Your task to perform on an android device: View the shopping cart on bestbuy.com. Image 0: 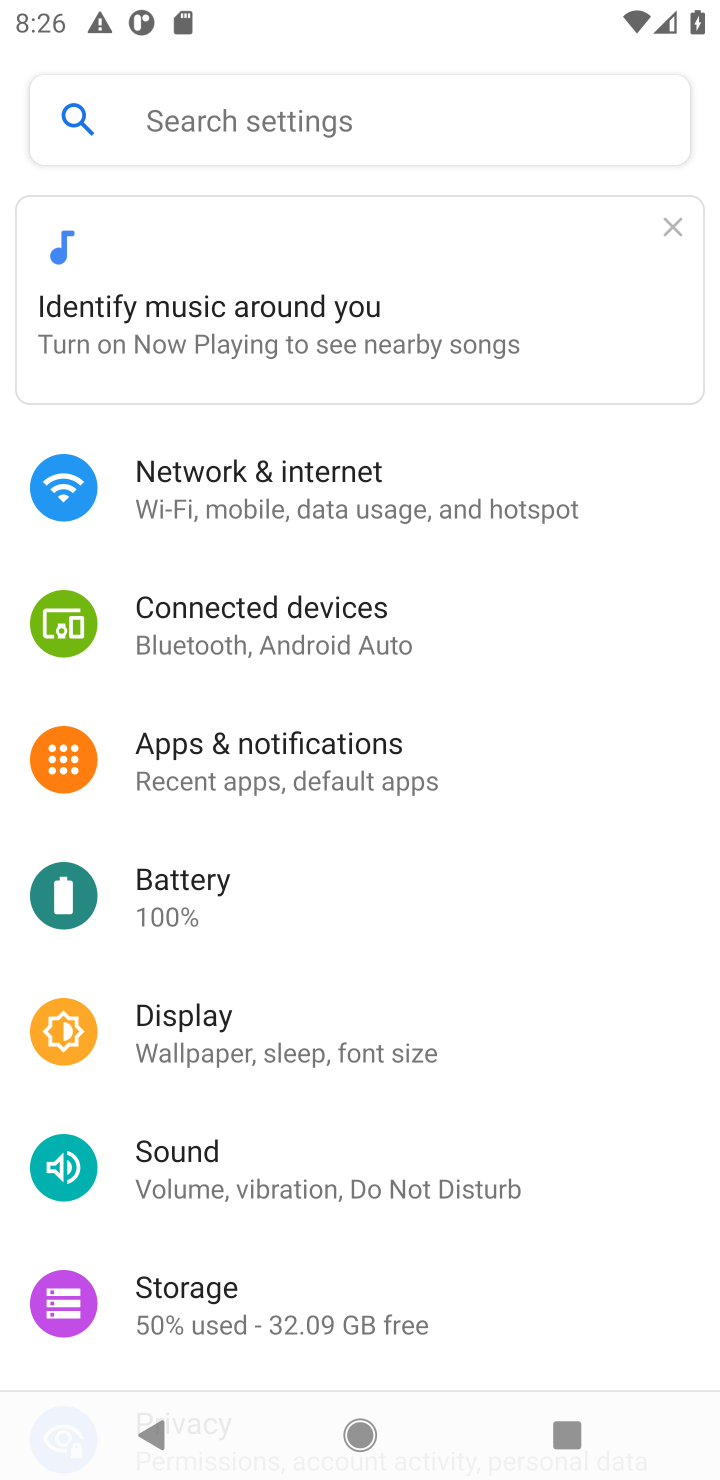
Step 0: press home button
Your task to perform on an android device: View the shopping cart on bestbuy.com. Image 1: 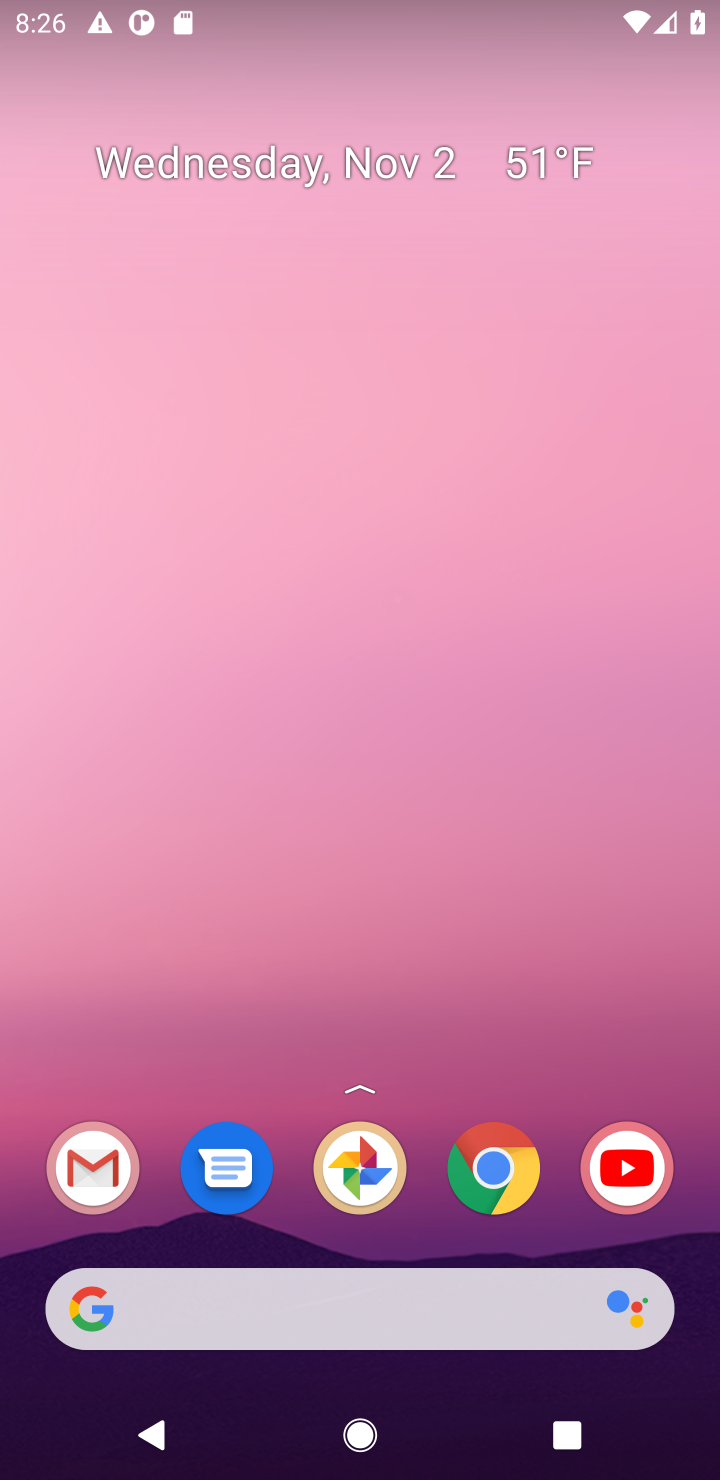
Step 1: click (706, 339)
Your task to perform on an android device: View the shopping cart on bestbuy.com. Image 2: 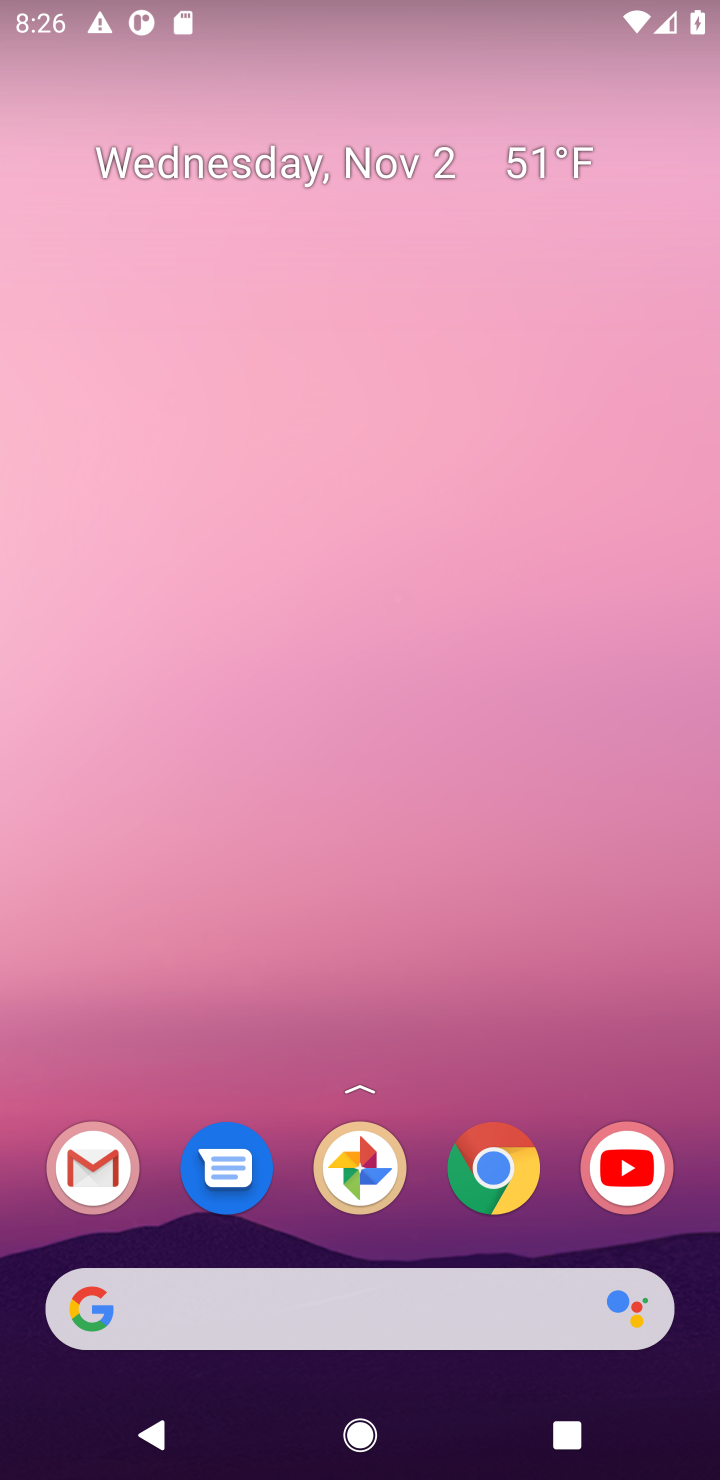
Step 2: click (517, 1158)
Your task to perform on an android device: View the shopping cart on bestbuy.com. Image 3: 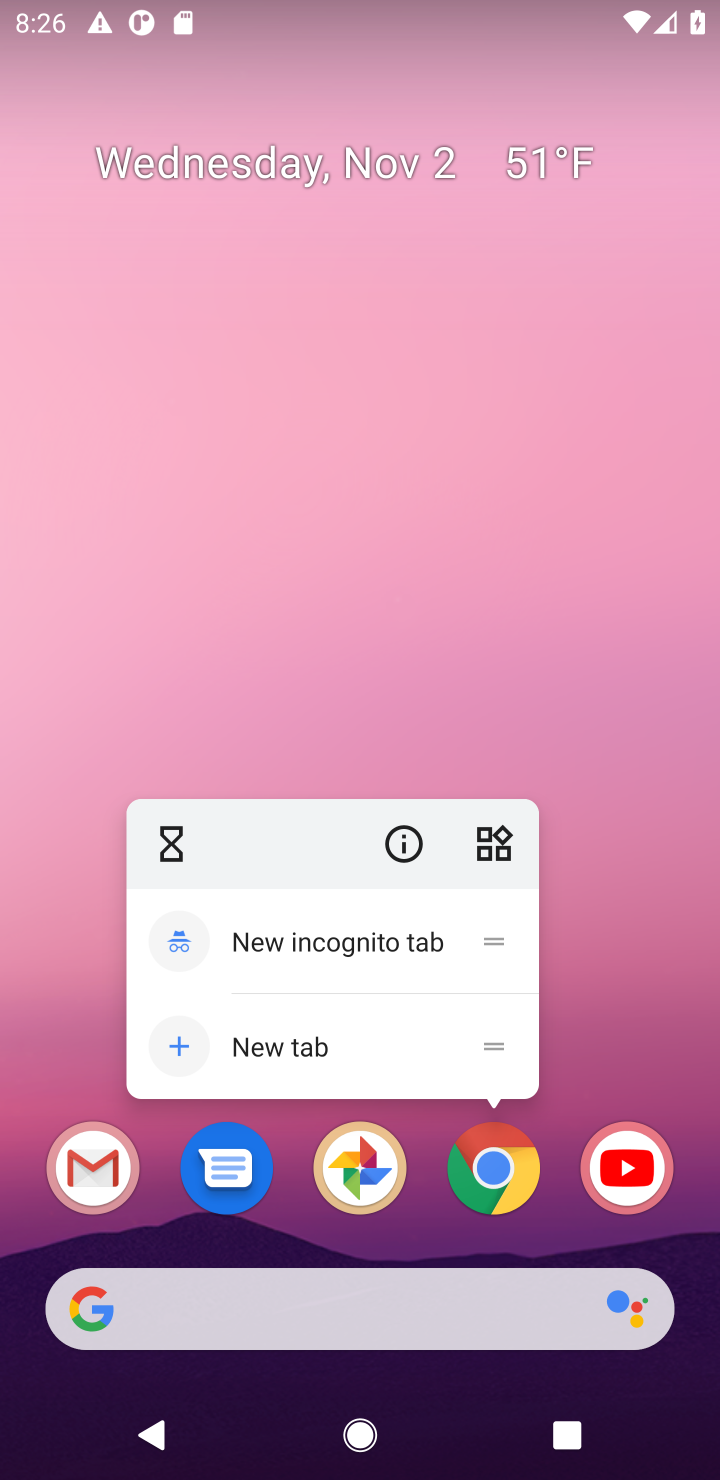
Step 3: click (510, 1160)
Your task to perform on an android device: View the shopping cart on bestbuy.com. Image 4: 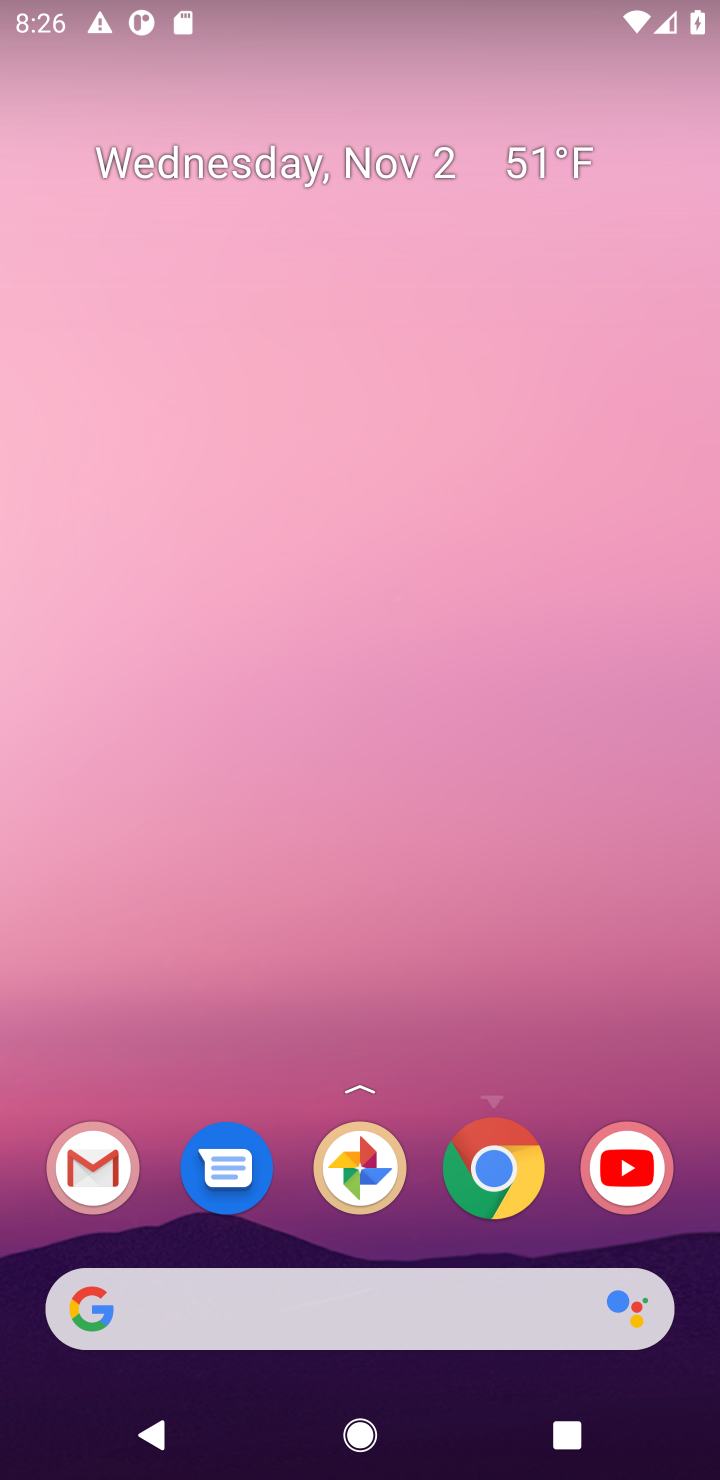
Step 4: click (622, 582)
Your task to perform on an android device: View the shopping cart on bestbuy.com. Image 5: 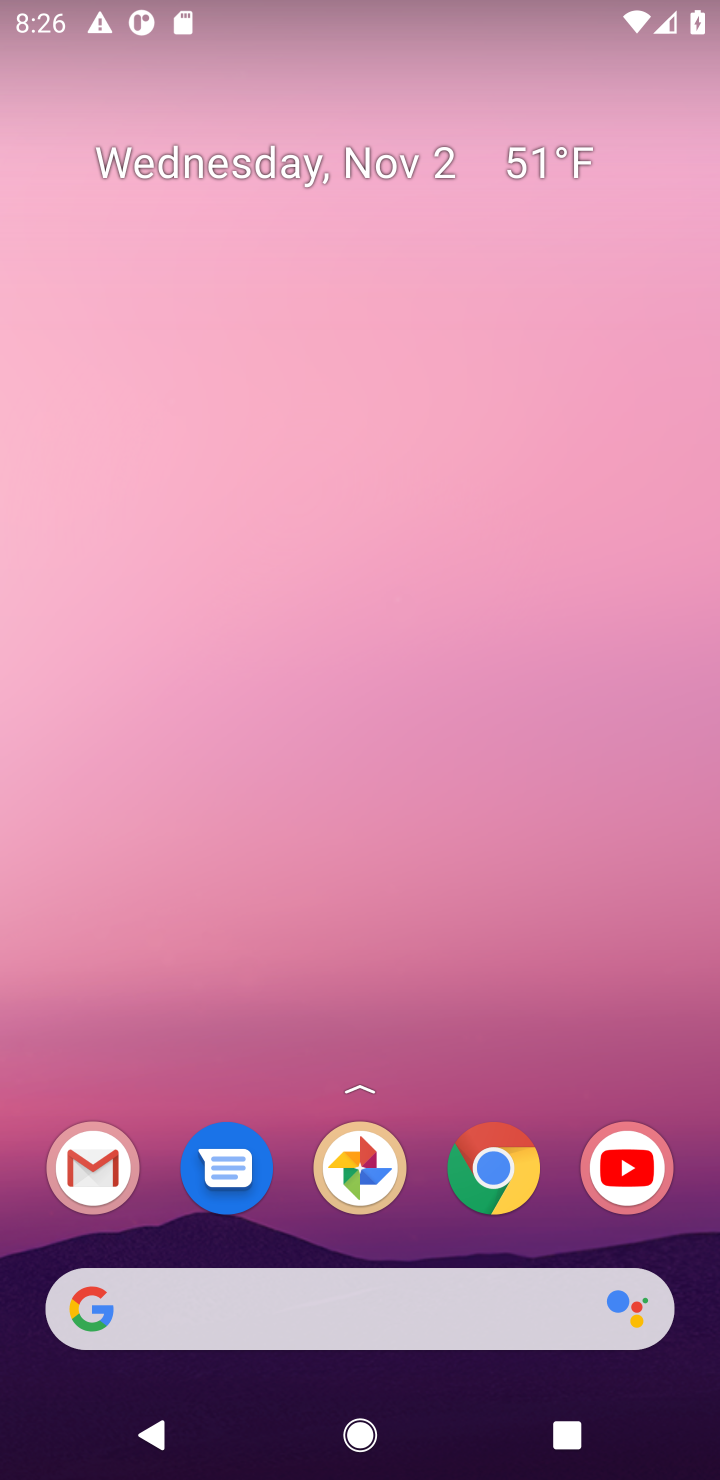
Step 5: click (625, 580)
Your task to perform on an android device: View the shopping cart on bestbuy.com. Image 6: 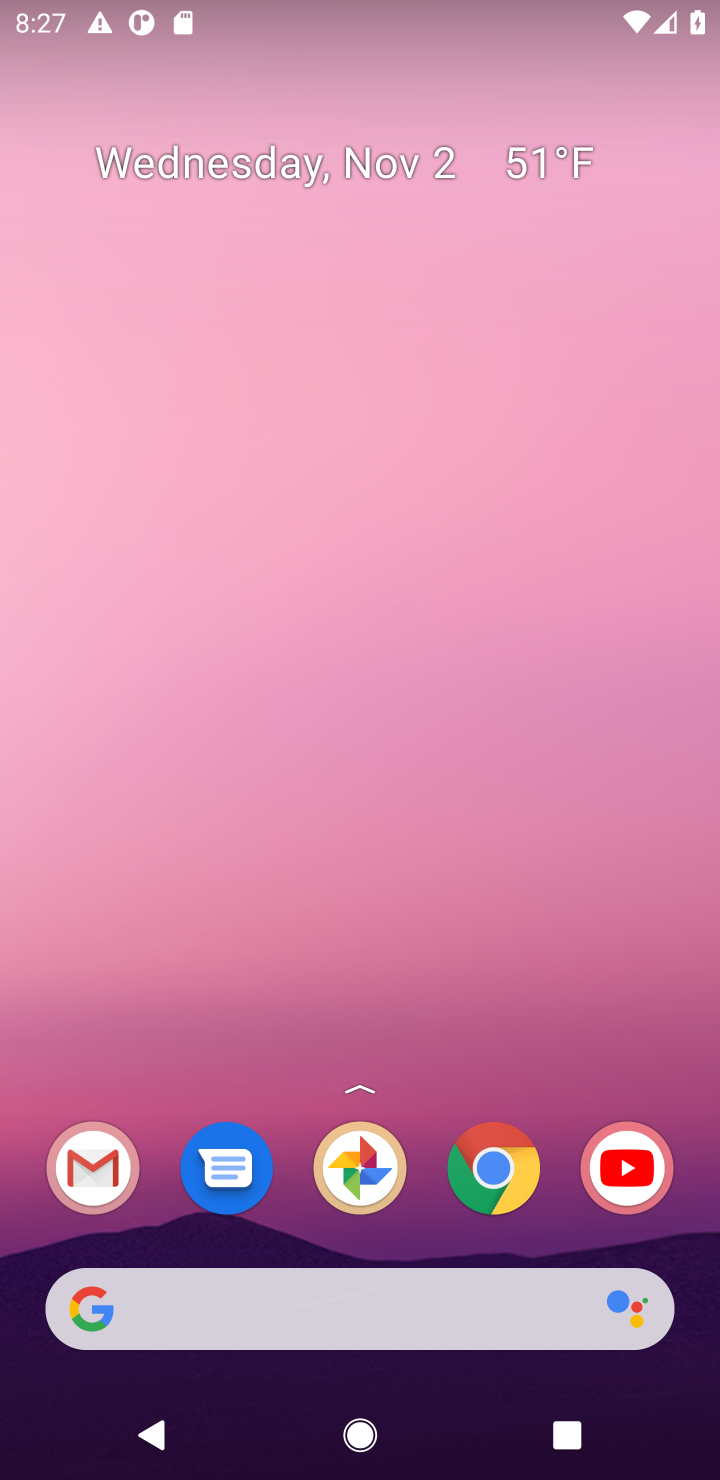
Step 6: click (625, 580)
Your task to perform on an android device: View the shopping cart on bestbuy.com. Image 7: 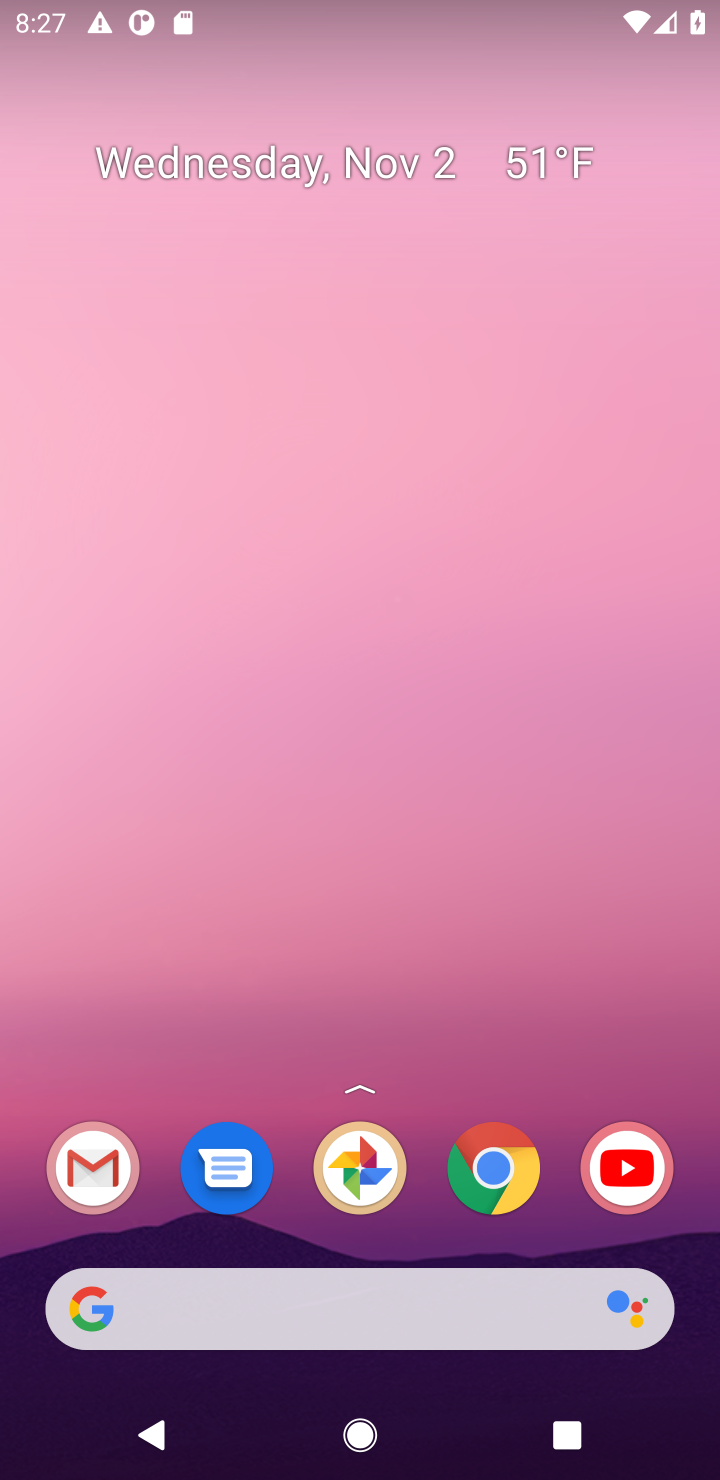
Step 7: click (505, 1161)
Your task to perform on an android device: View the shopping cart on bestbuy.com. Image 8: 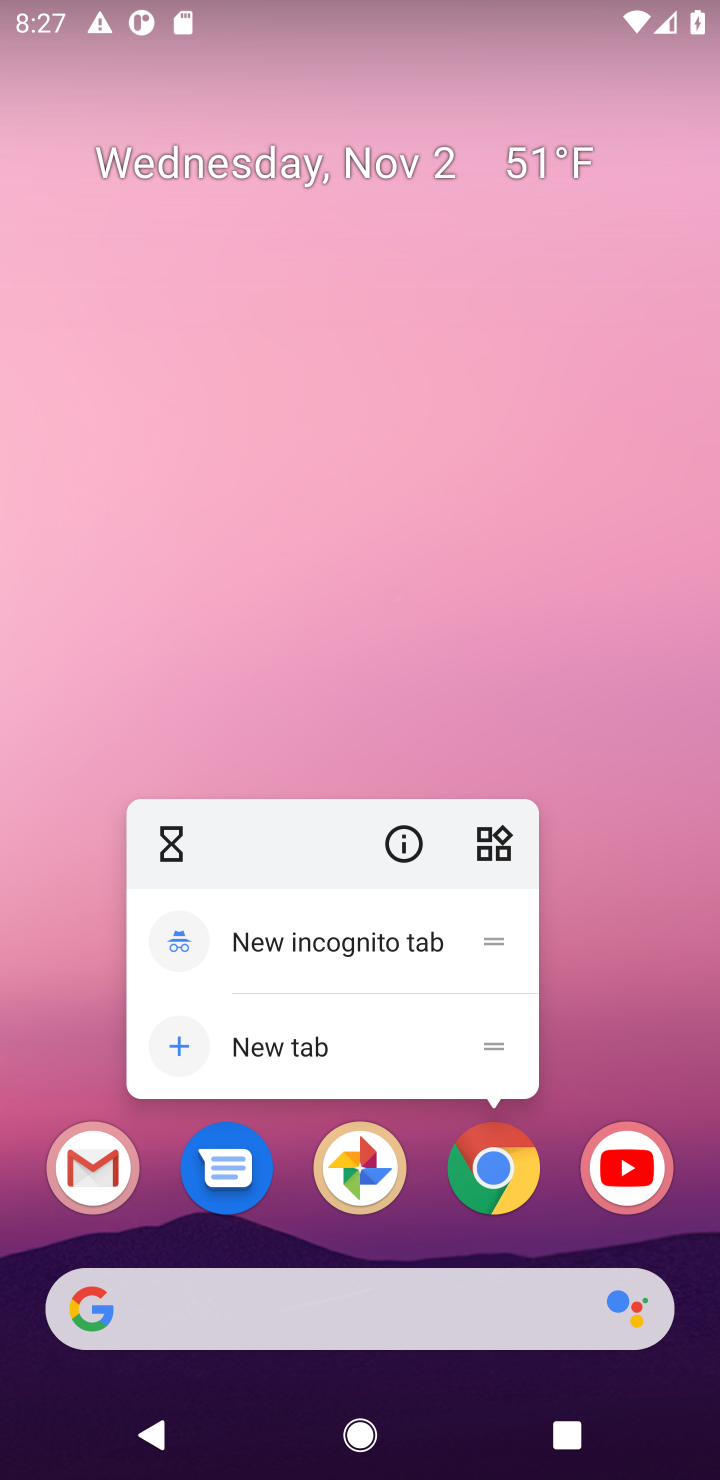
Step 8: click (563, 542)
Your task to perform on an android device: View the shopping cart on bestbuy.com. Image 9: 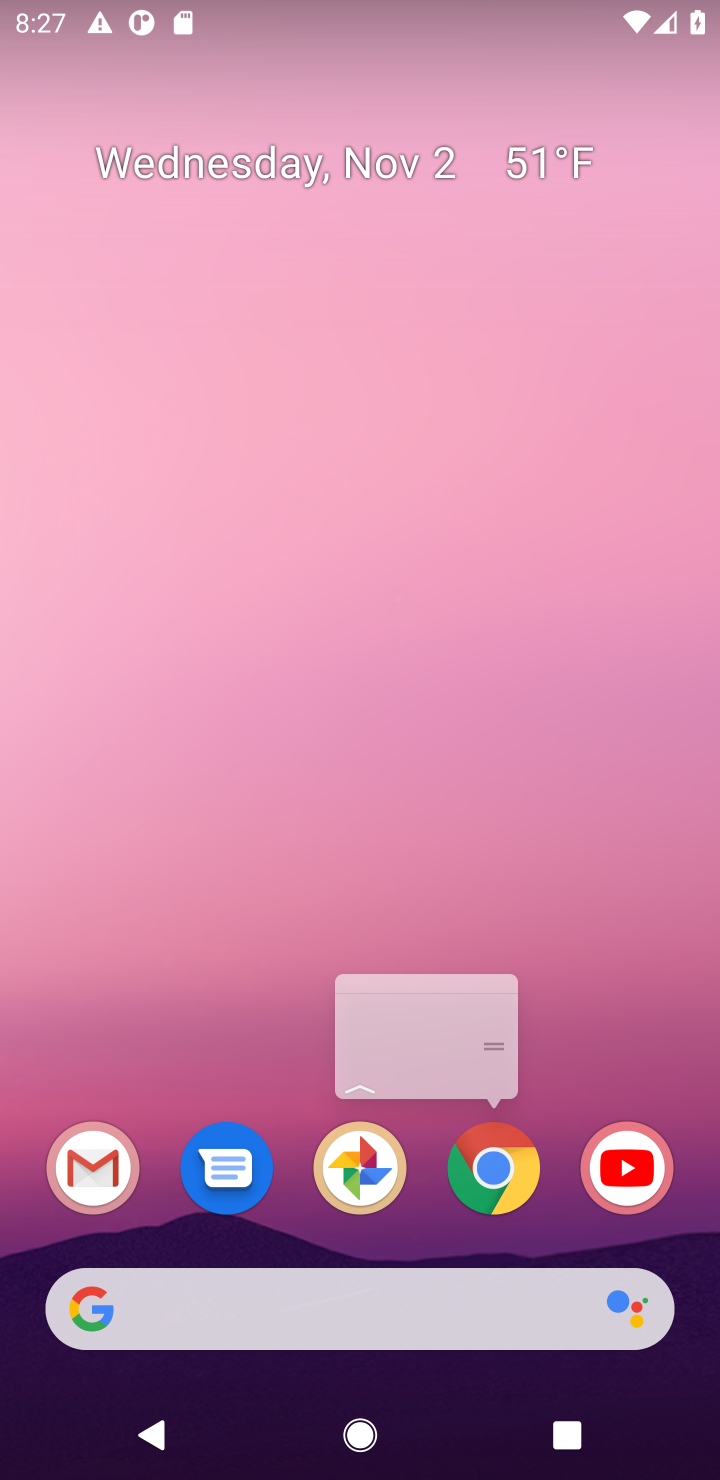
Step 9: drag from (407, 692) to (269, 518)
Your task to perform on an android device: View the shopping cart on bestbuy.com. Image 10: 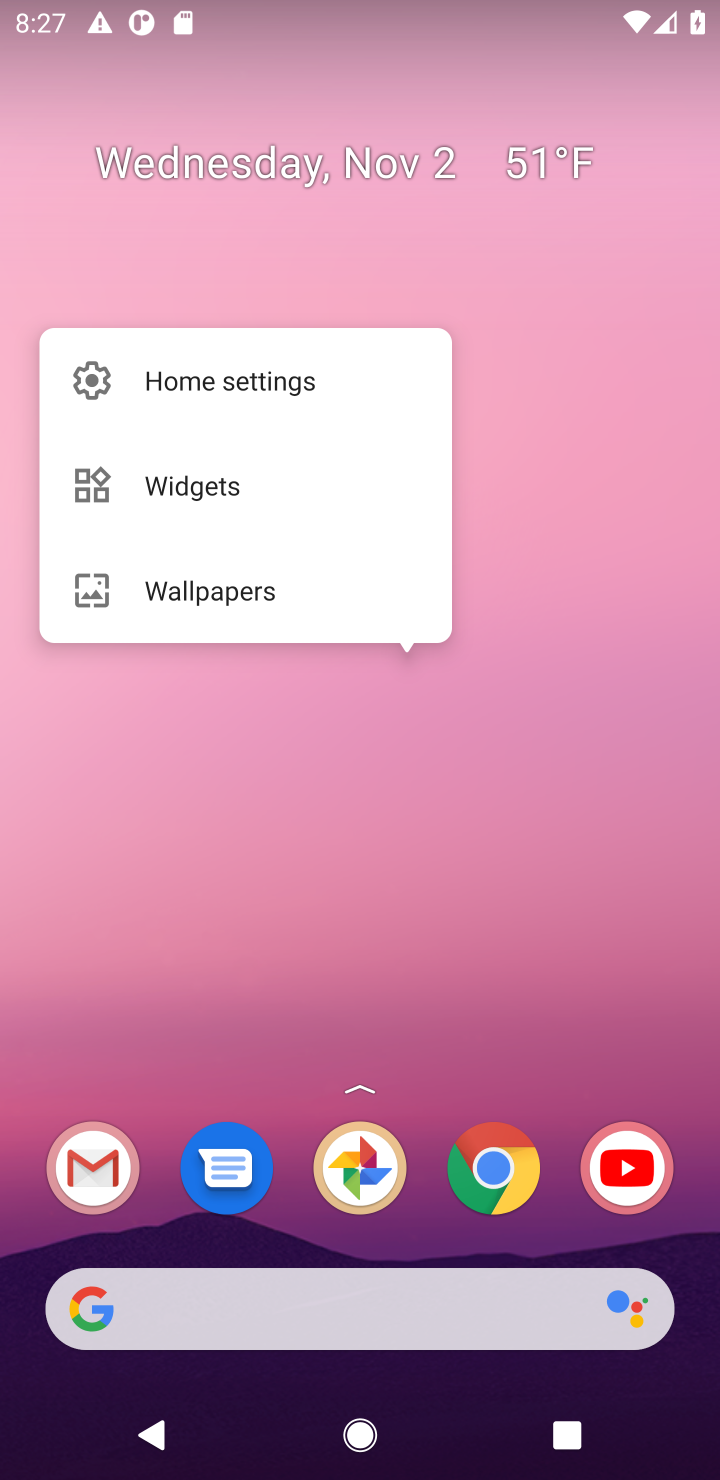
Step 10: click (407, 692)
Your task to perform on an android device: View the shopping cart on bestbuy.com. Image 11: 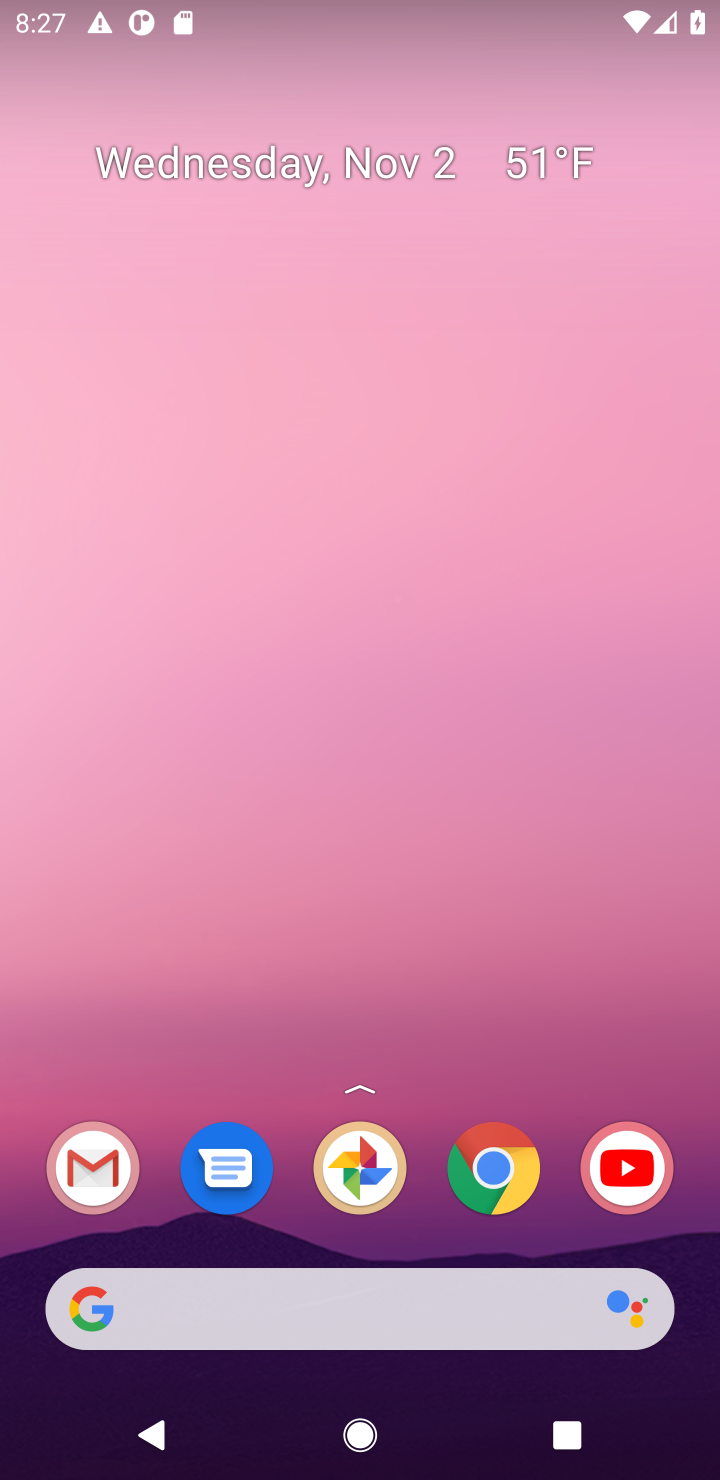
Step 11: click (472, 1186)
Your task to perform on an android device: View the shopping cart on bestbuy.com. Image 12: 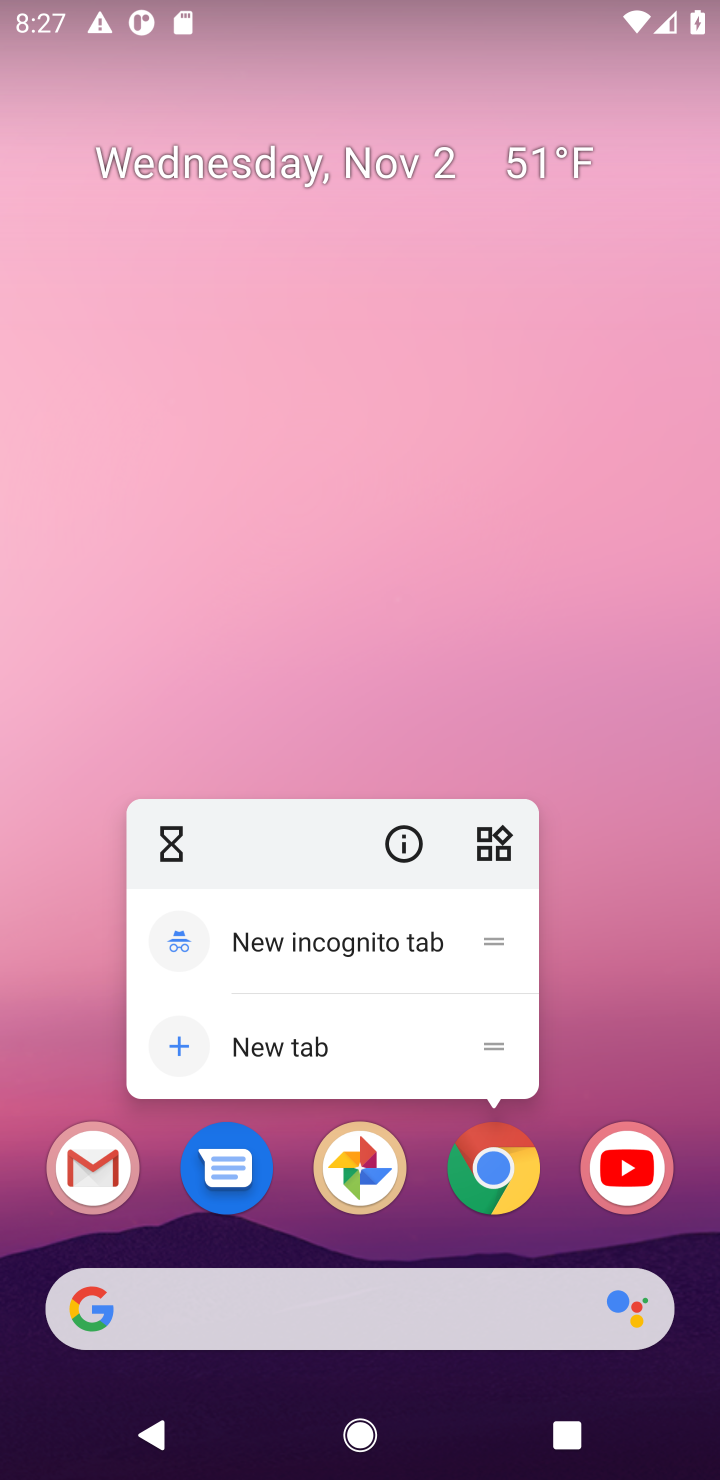
Step 12: click (490, 1169)
Your task to perform on an android device: View the shopping cart on bestbuy.com. Image 13: 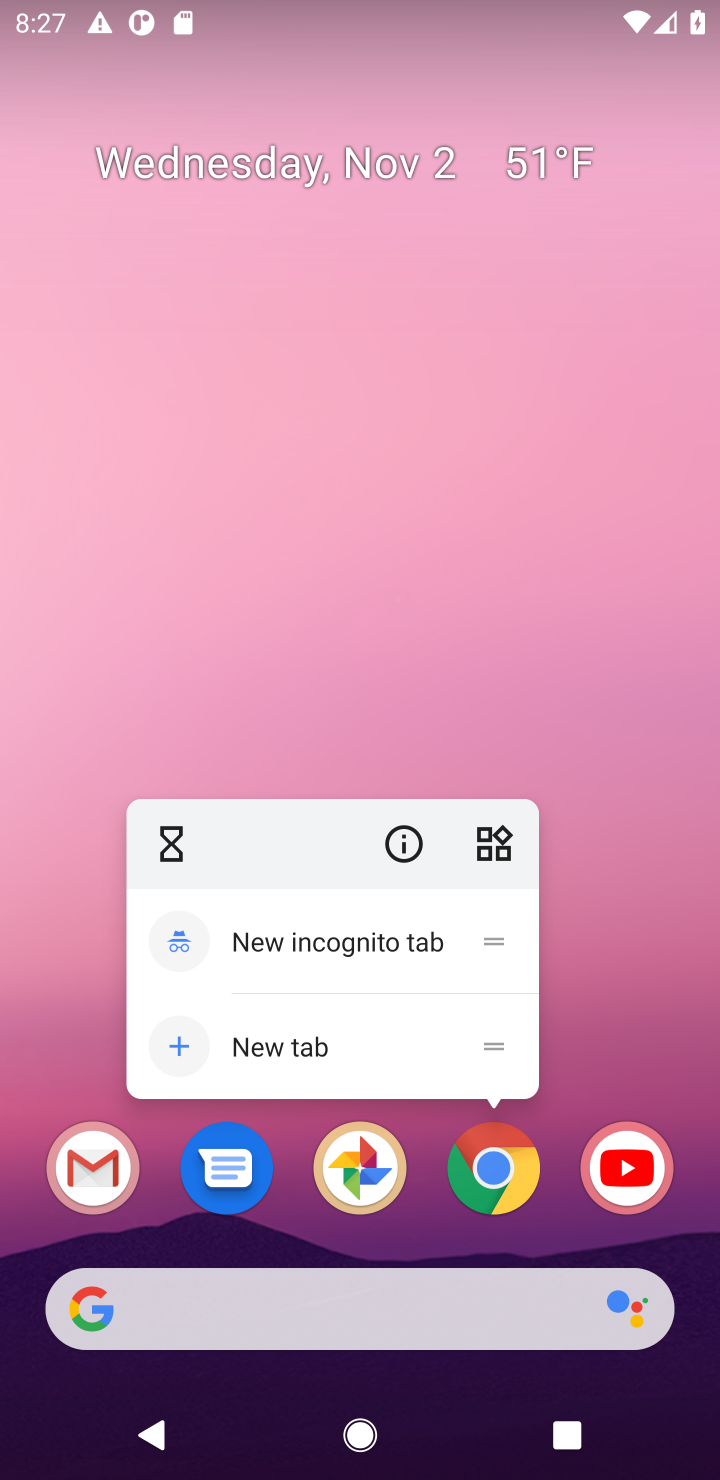
Step 13: click (493, 1171)
Your task to perform on an android device: View the shopping cart on bestbuy.com. Image 14: 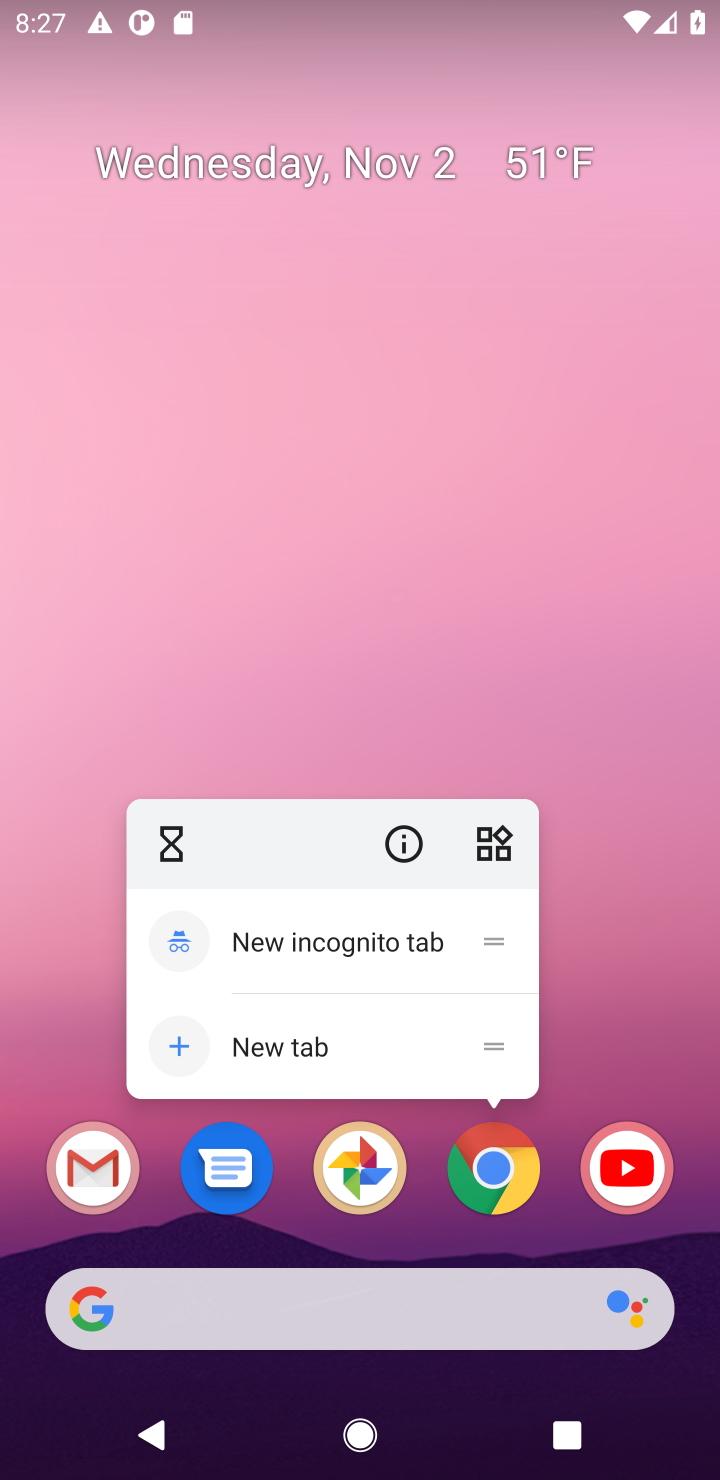
Step 14: click (493, 1173)
Your task to perform on an android device: View the shopping cart on bestbuy.com. Image 15: 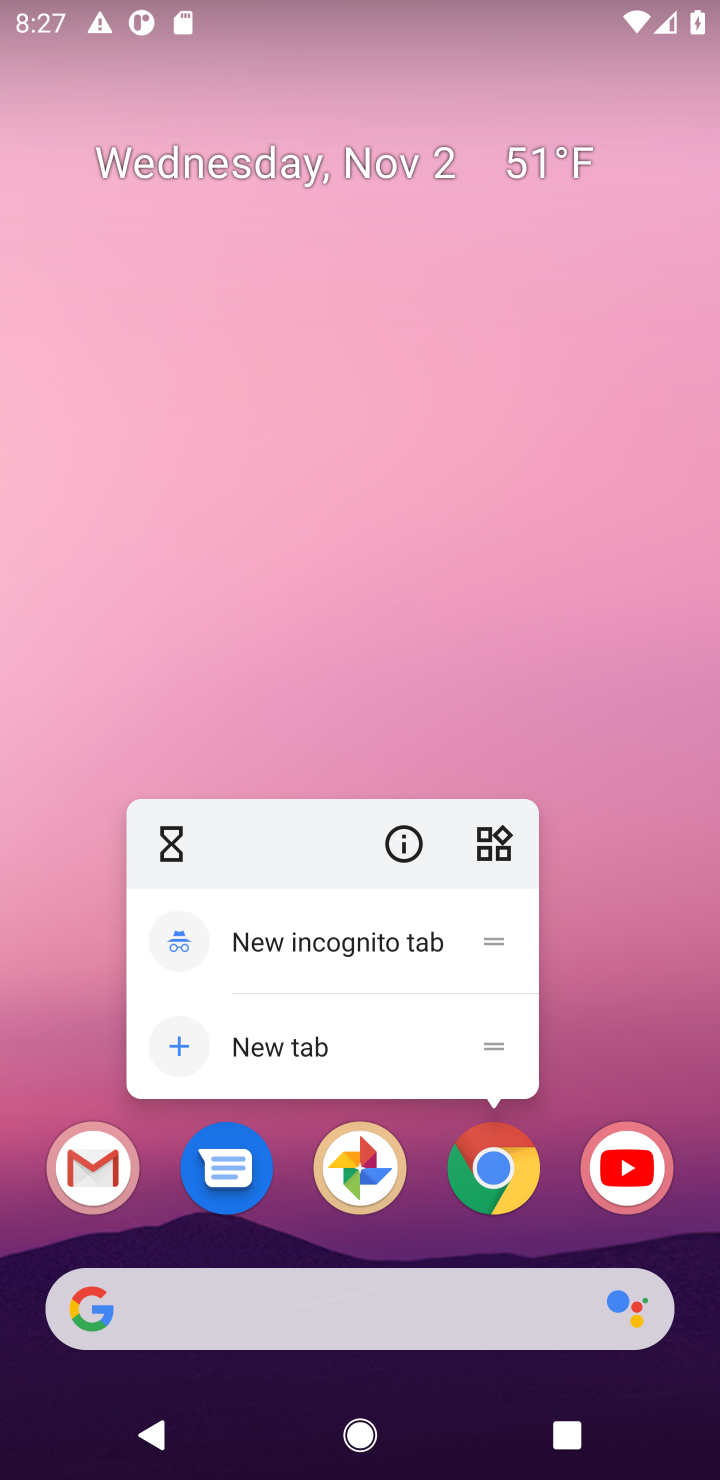
Step 15: click (493, 1173)
Your task to perform on an android device: View the shopping cart on bestbuy.com. Image 16: 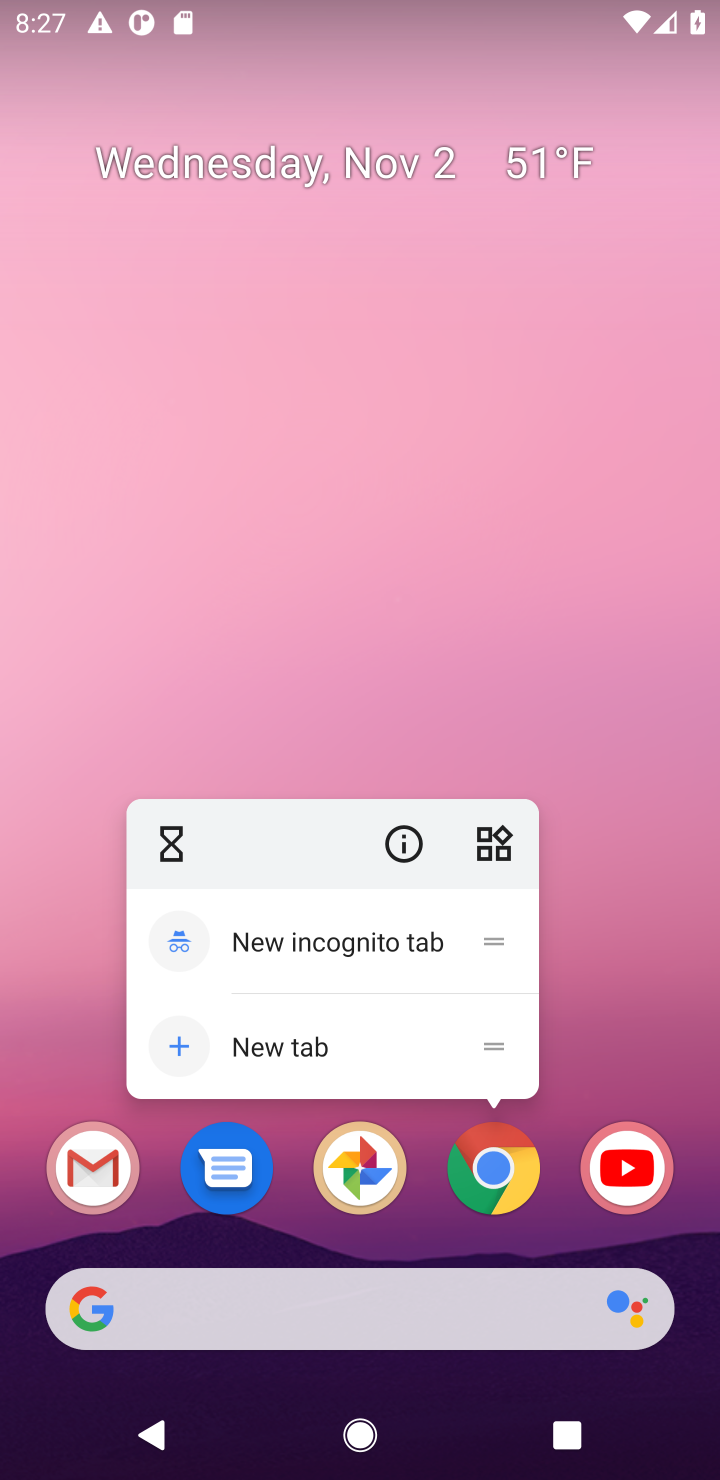
Step 16: click (540, 597)
Your task to perform on an android device: View the shopping cart on bestbuy.com. Image 17: 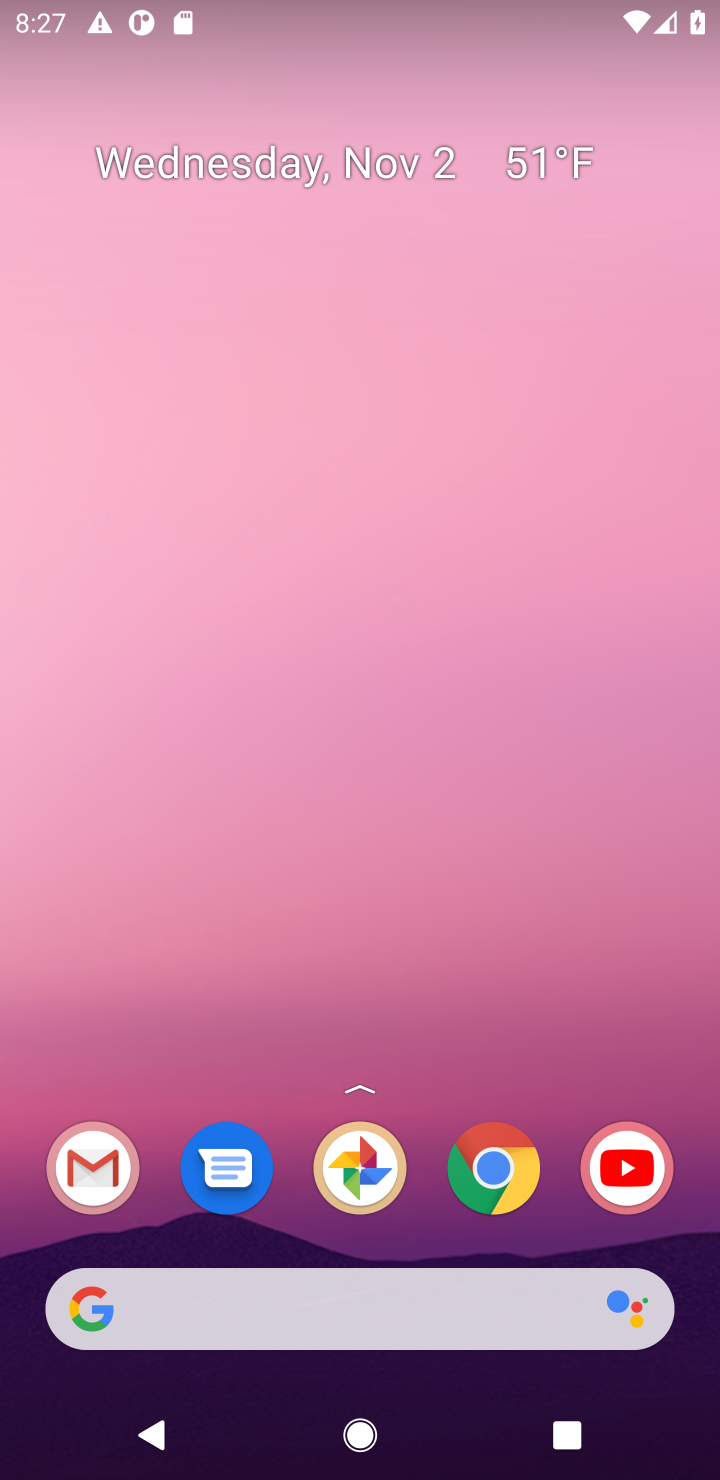
Step 17: click (272, 1298)
Your task to perform on an android device: View the shopping cart on bestbuy.com. Image 18: 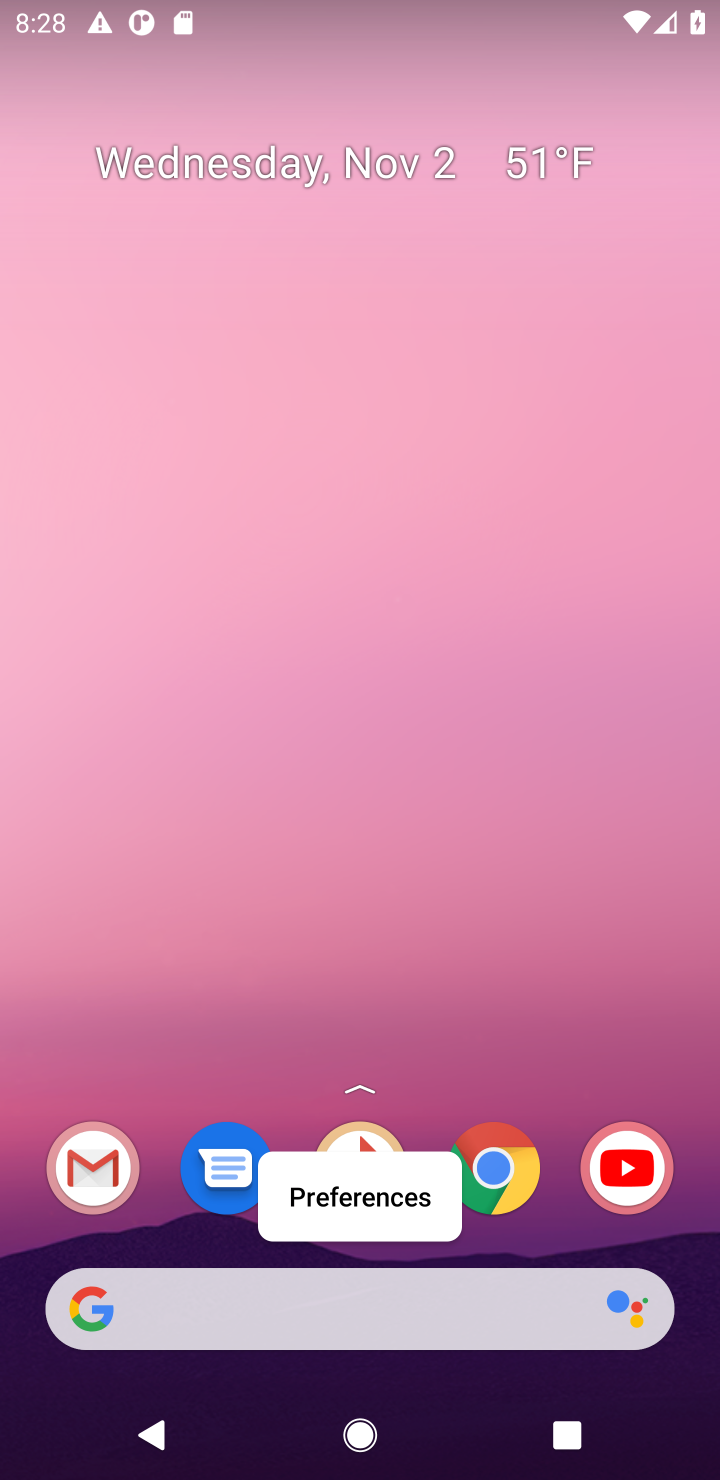
Step 18: task complete